Your task to perform on an android device: Search for 4k TVs on Best Buy. Image 0: 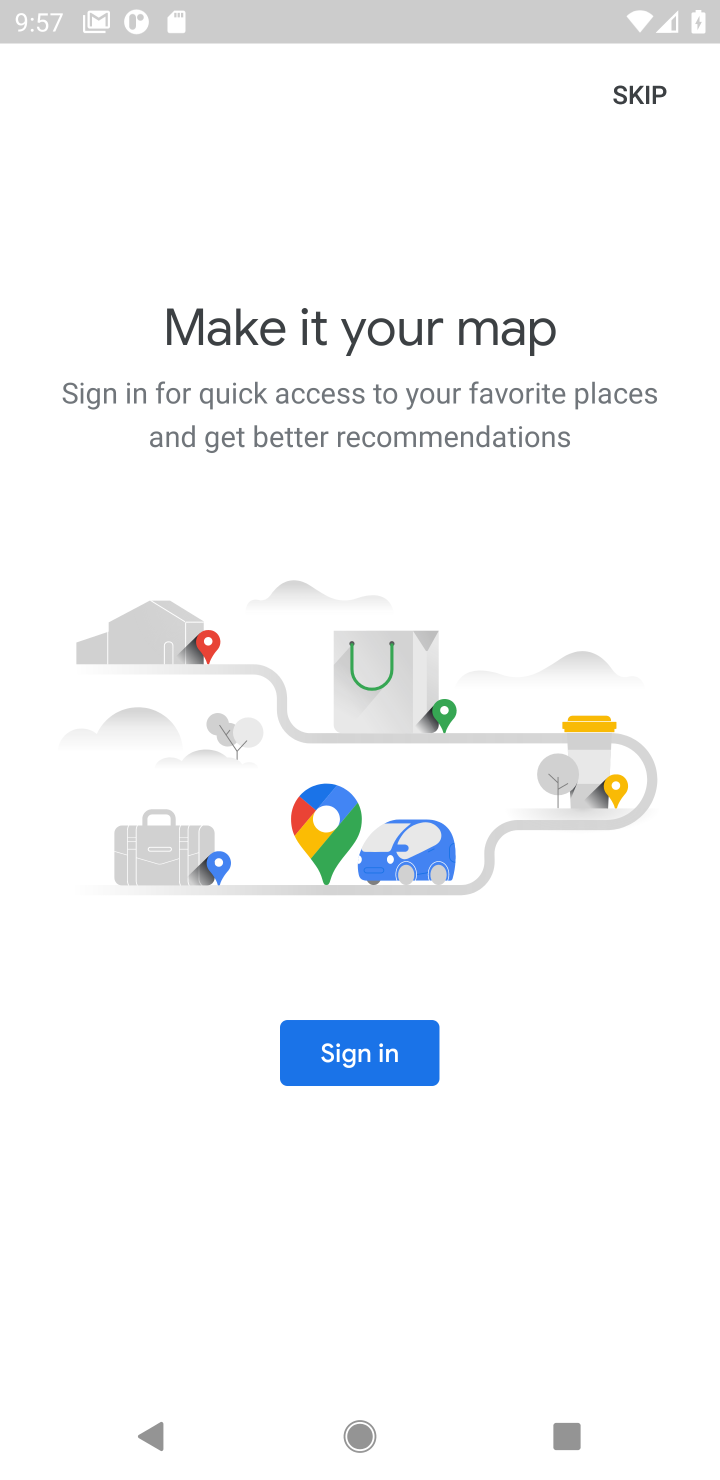
Step 0: press home button
Your task to perform on an android device: Search for 4k TVs on Best Buy. Image 1: 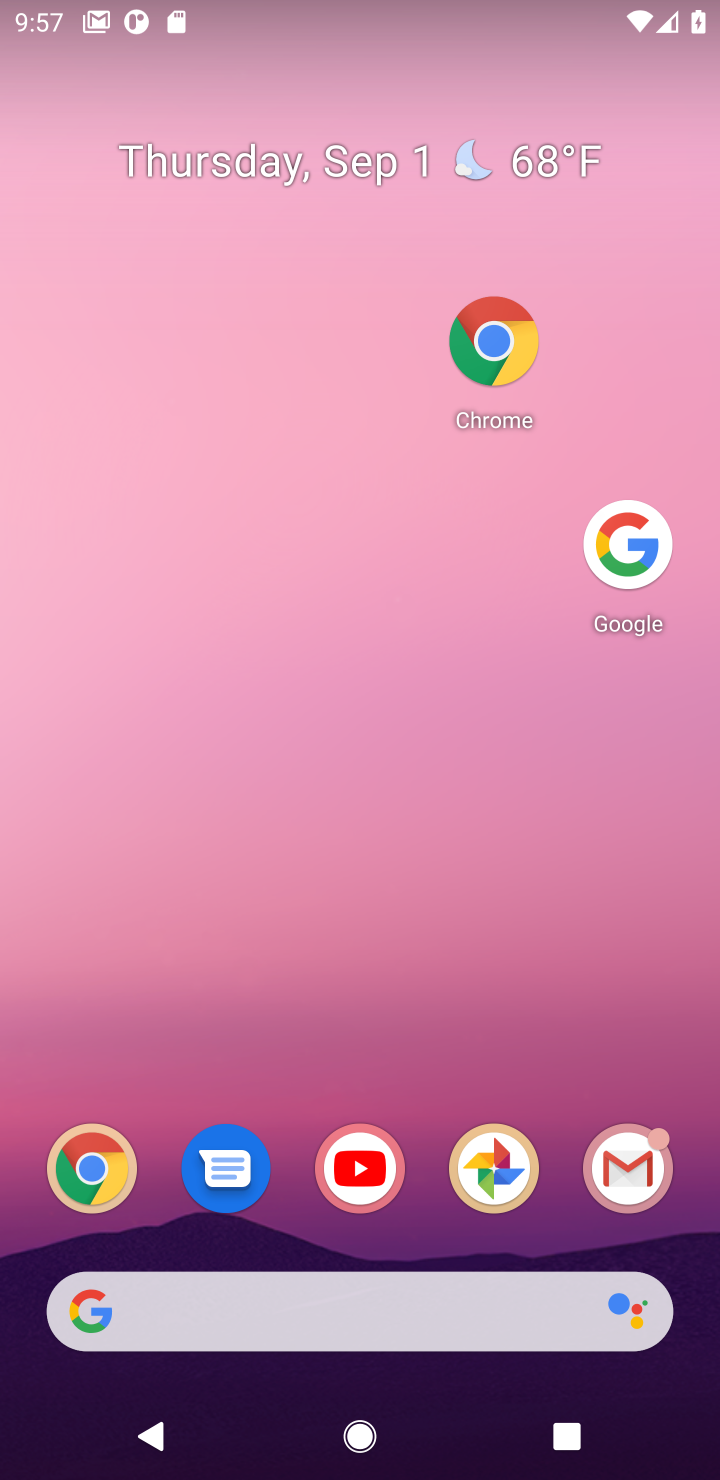
Step 1: drag from (346, 877) to (424, 439)
Your task to perform on an android device: Search for 4k TVs on Best Buy. Image 2: 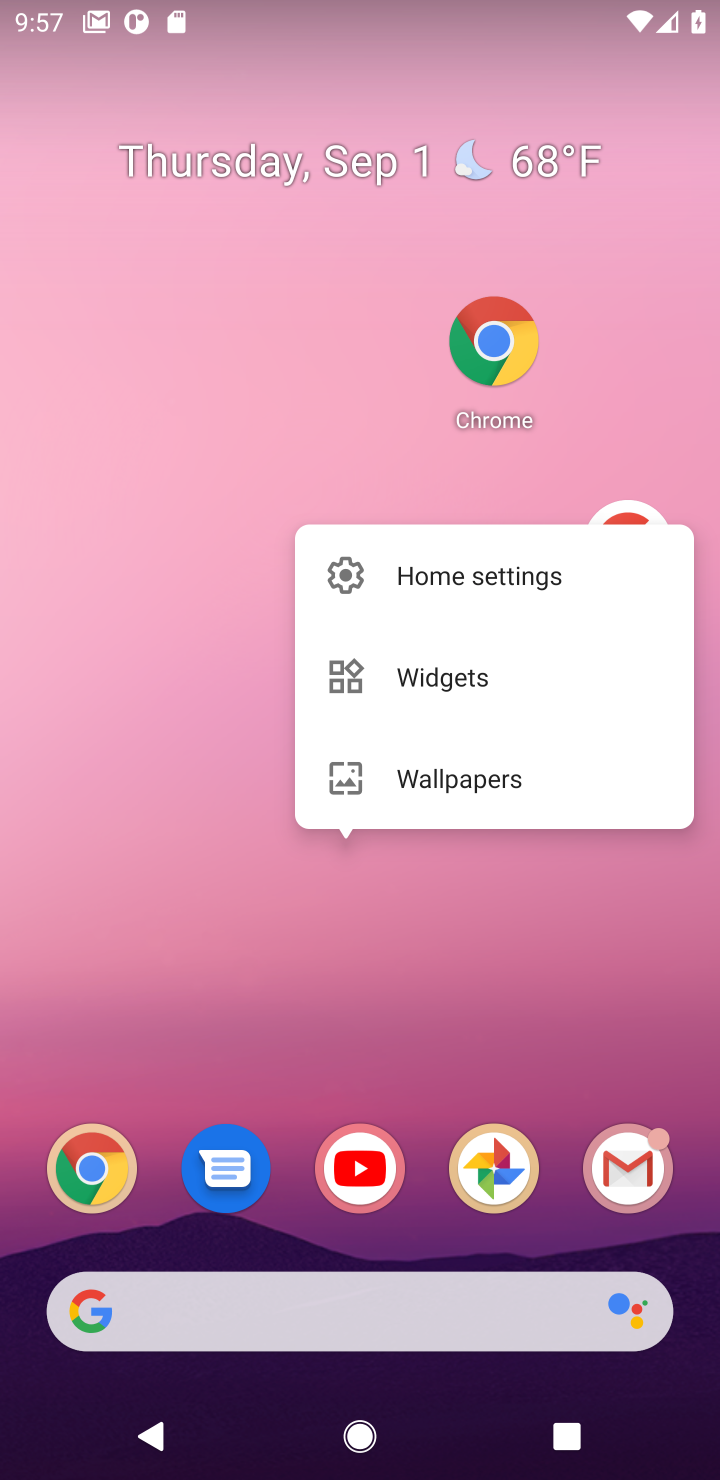
Step 2: click (349, 460)
Your task to perform on an android device: Search for 4k TVs on Best Buy. Image 3: 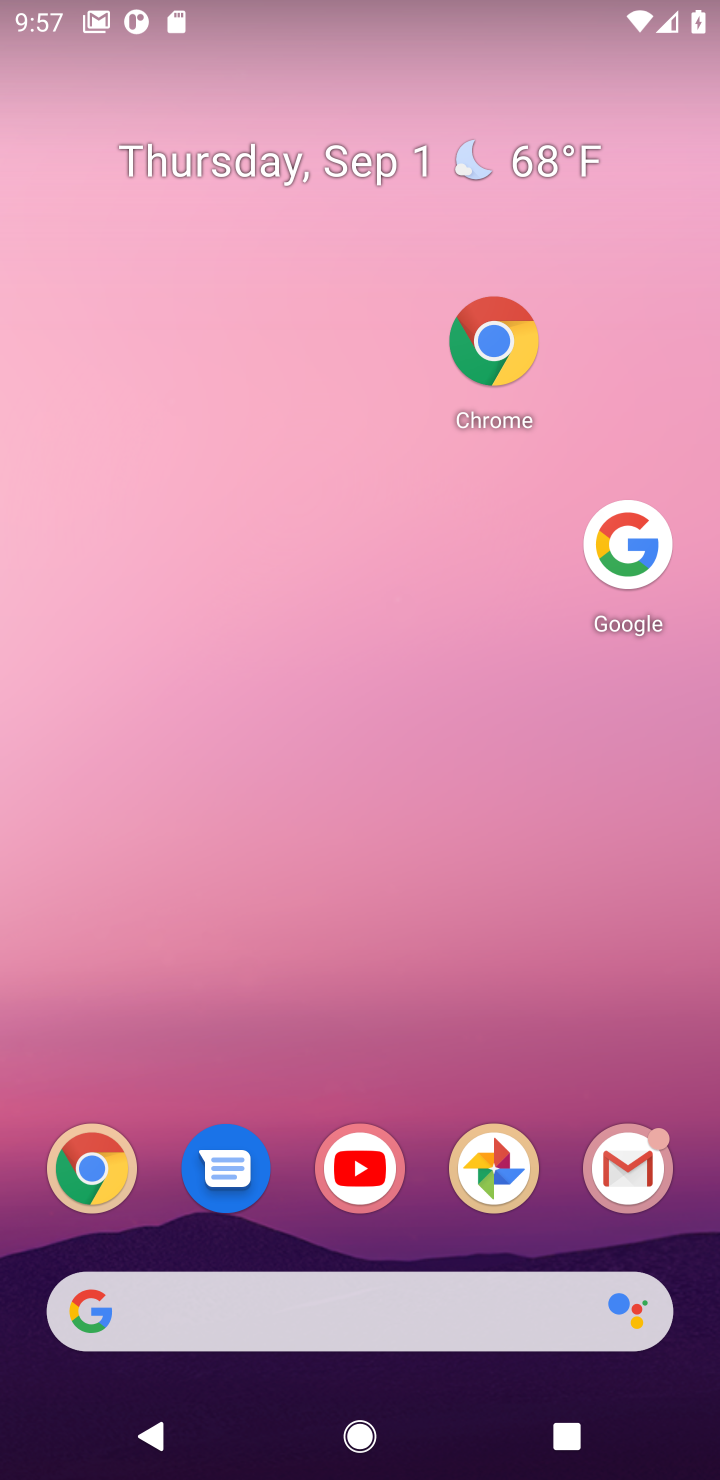
Step 3: click (633, 529)
Your task to perform on an android device: Search for 4k TVs on Best Buy. Image 4: 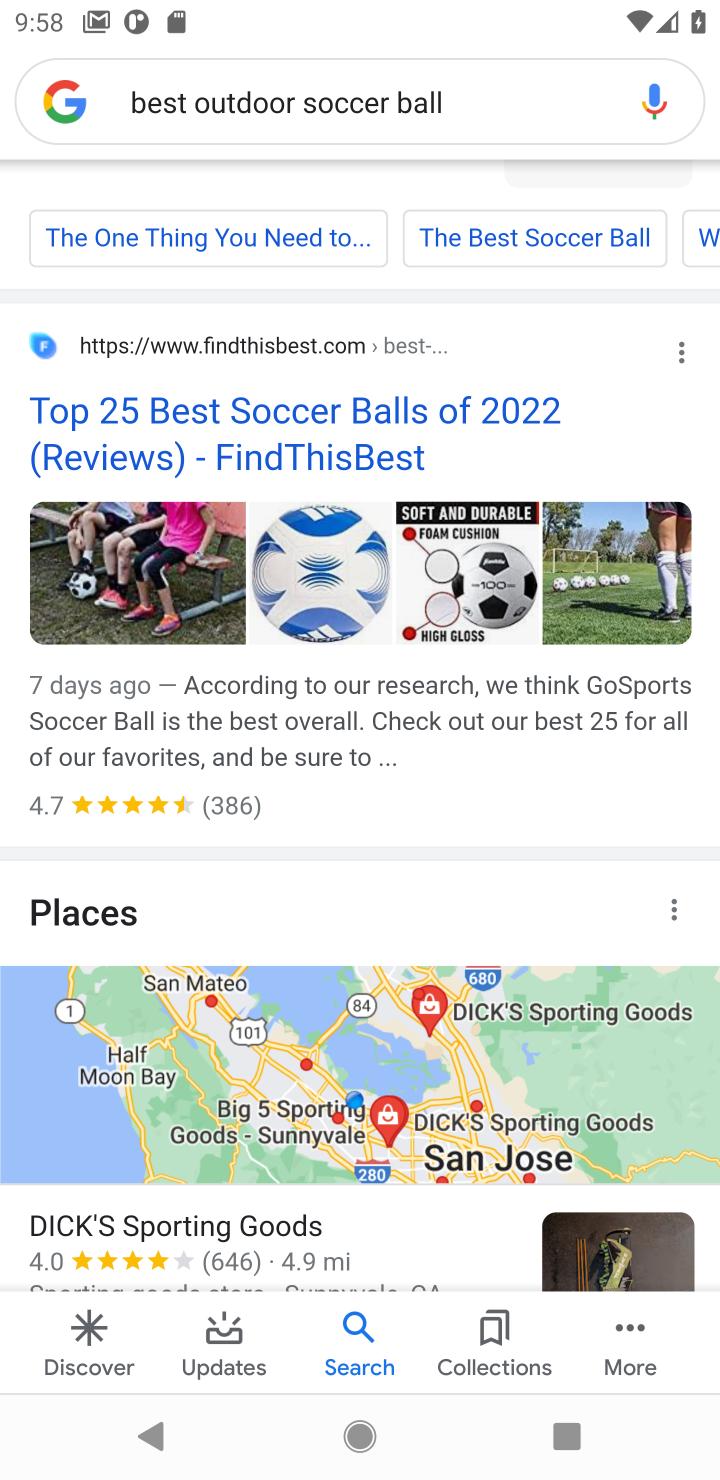
Step 4: click (521, 80)
Your task to perform on an android device: Search for 4k TVs on Best Buy. Image 5: 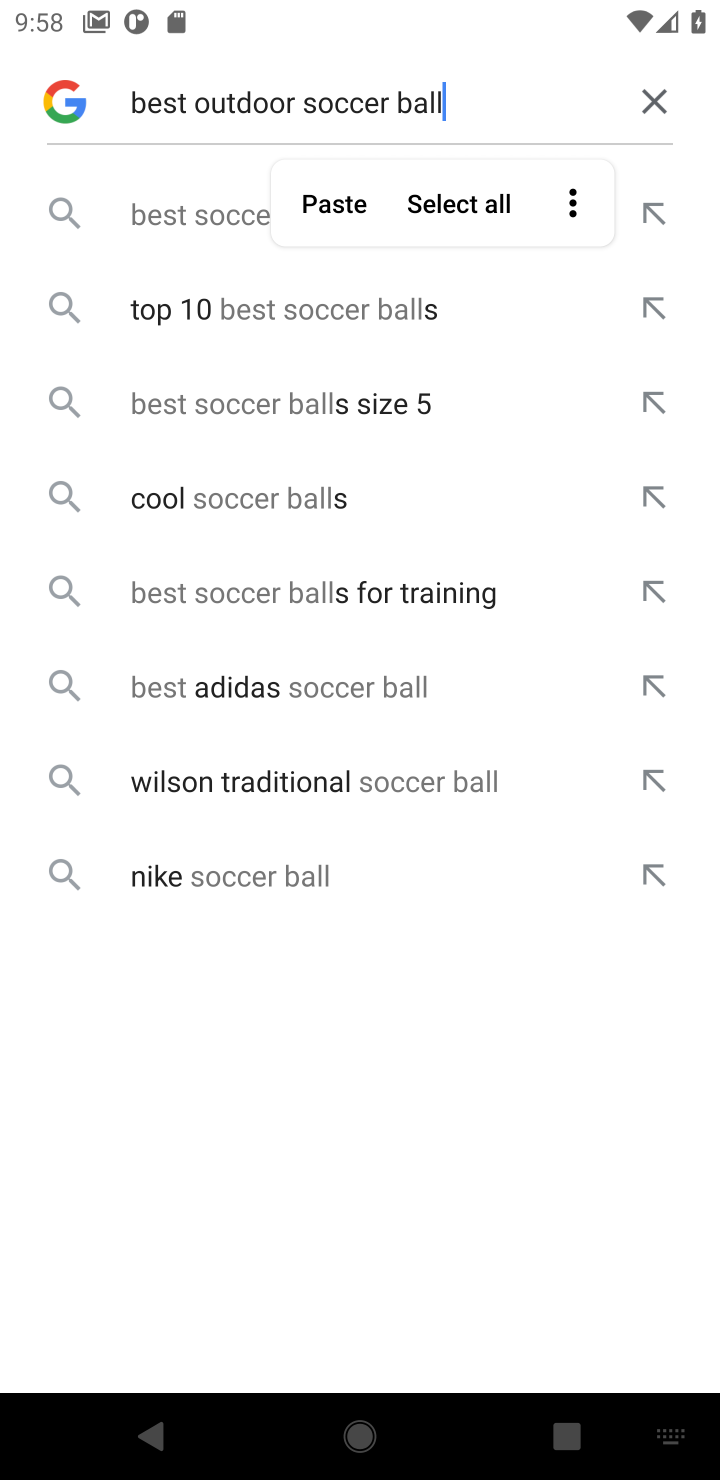
Step 5: click (634, 93)
Your task to perform on an android device: Search for 4k TVs on Best Buy. Image 6: 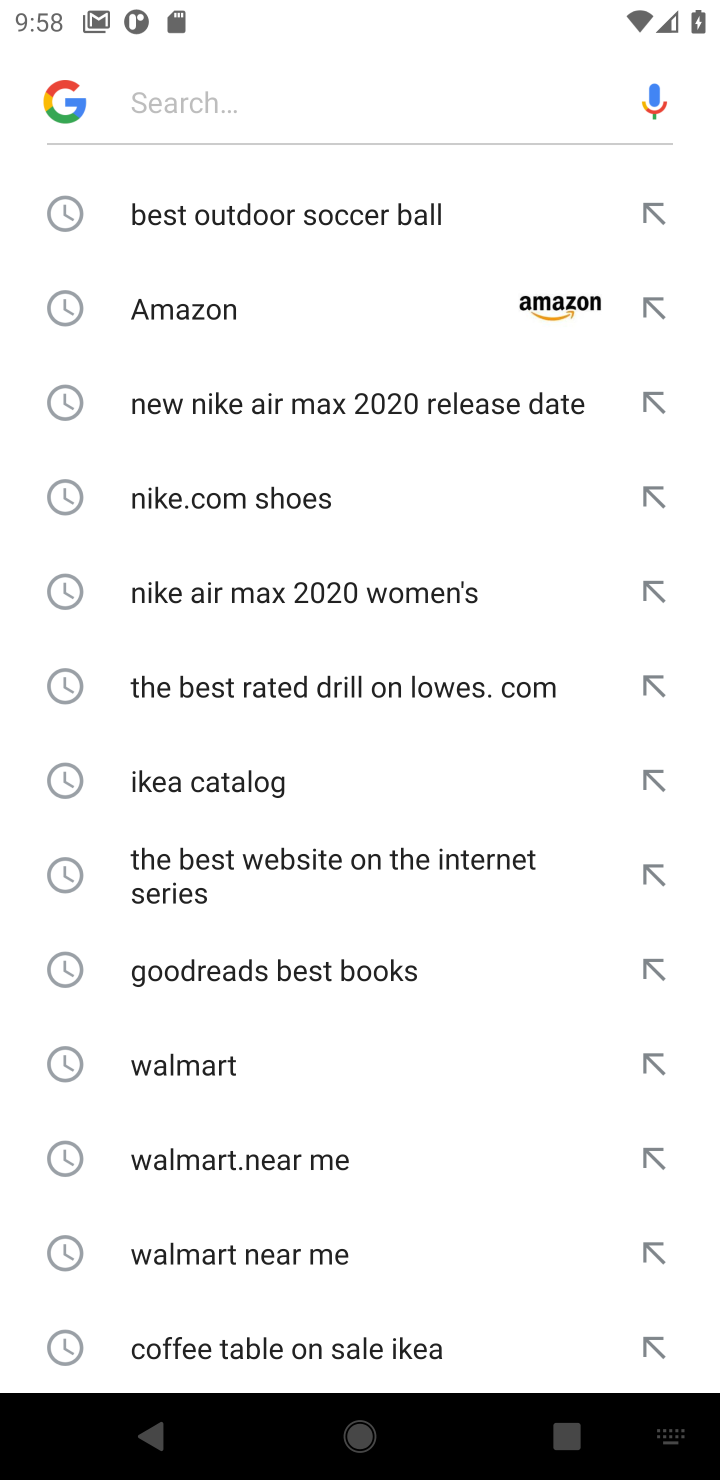
Step 6: click (300, 104)
Your task to perform on an android device: Search for 4k TVs on Best Buy. Image 7: 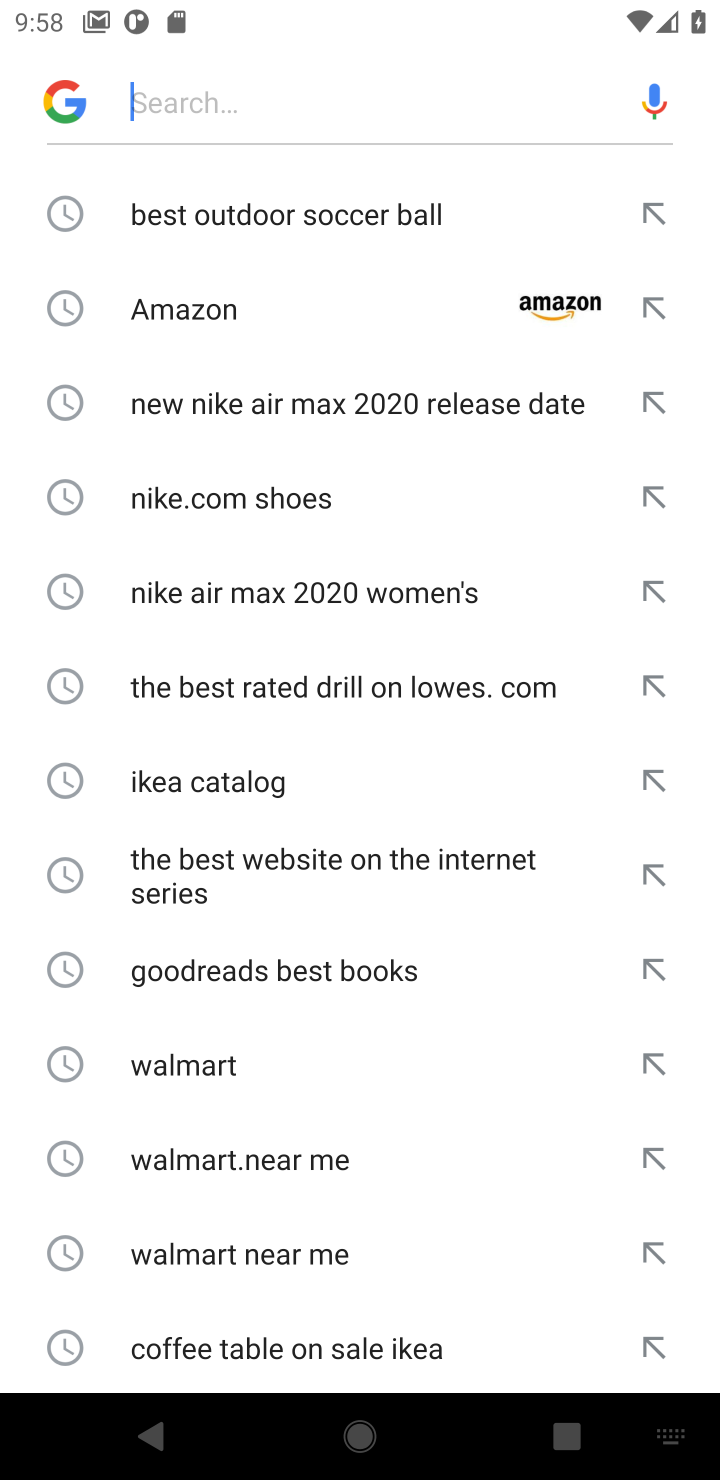
Step 7: type "Best Buy. "
Your task to perform on an android device: Search for 4k TVs on Best Buy. Image 8: 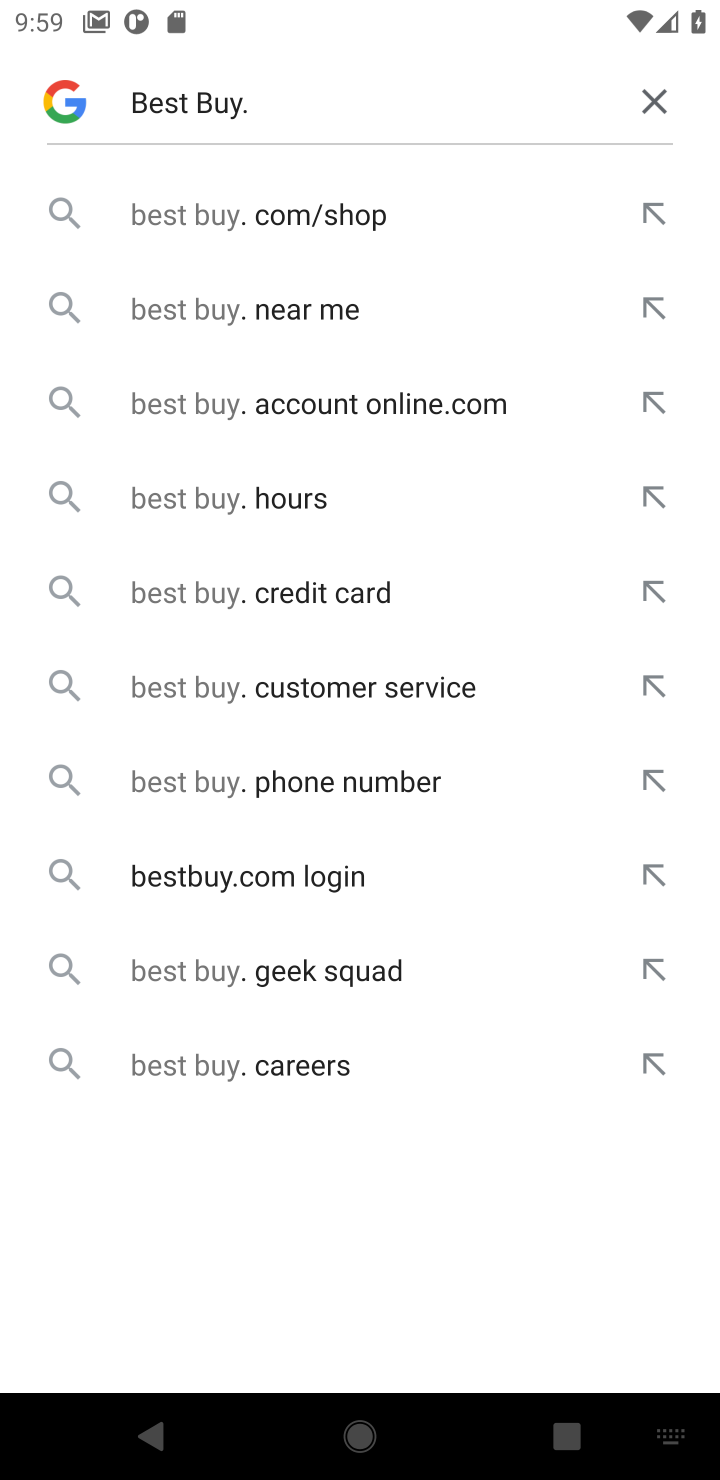
Step 8: click (253, 233)
Your task to perform on an android device: Search for 4k TVs on Best Buy. Image 9: 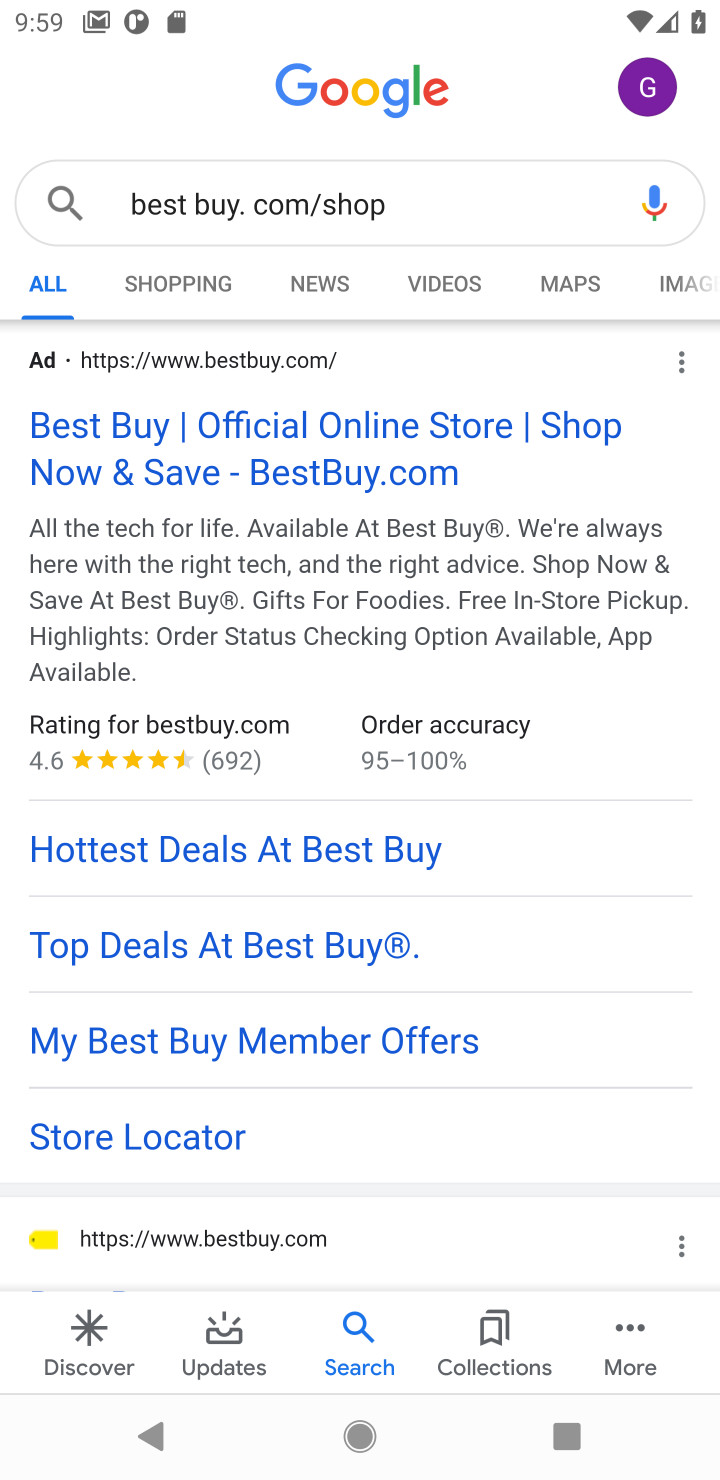
Step 9: click (211, 430)
Your task to perform on an android device: Search for 4k TVs on Best Buy. Image 10: 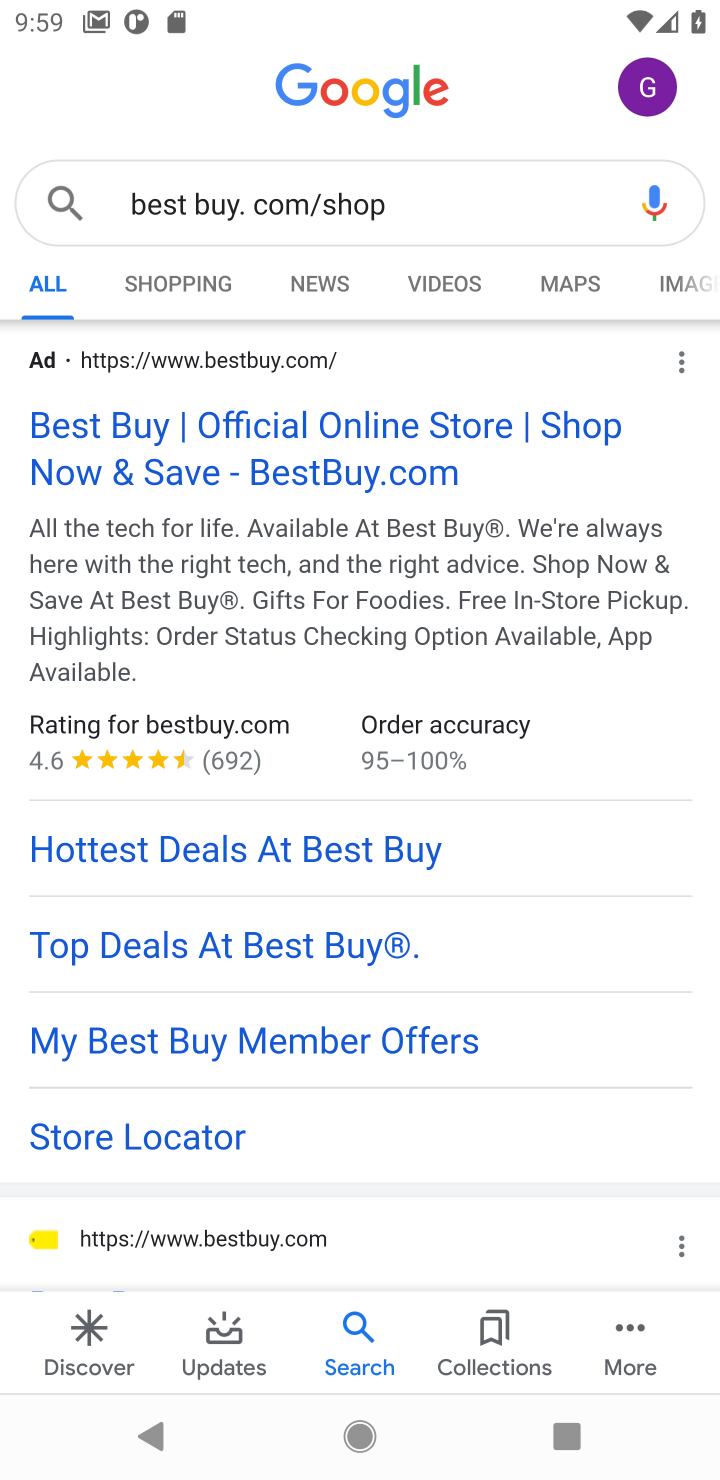
Step 10: click (261, 396)
Your task to perform on an android device: Search for 4k TVs on Best Buy. Image 11: 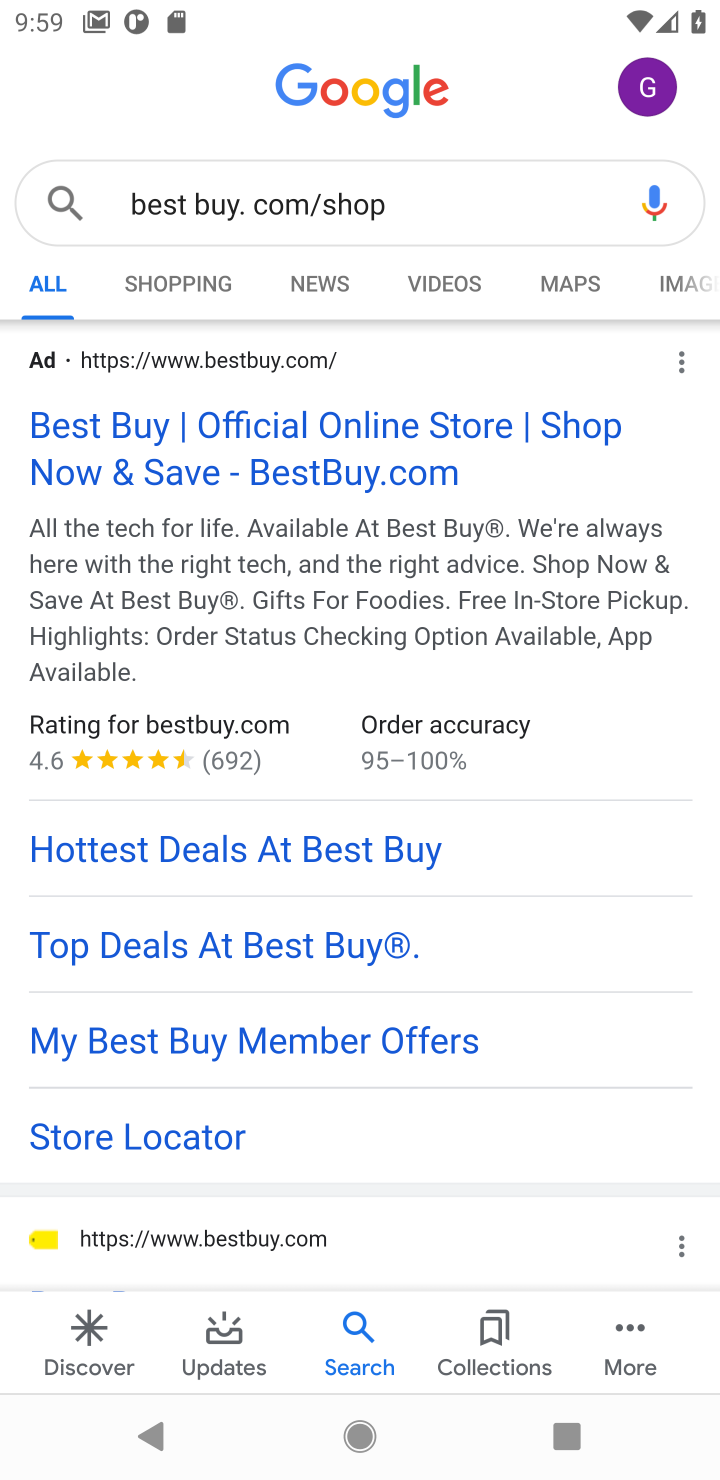
Step 11: click (268, 422)
Your task to perform on an android device: Search for 4k TVs on Best Buy. Image 12: 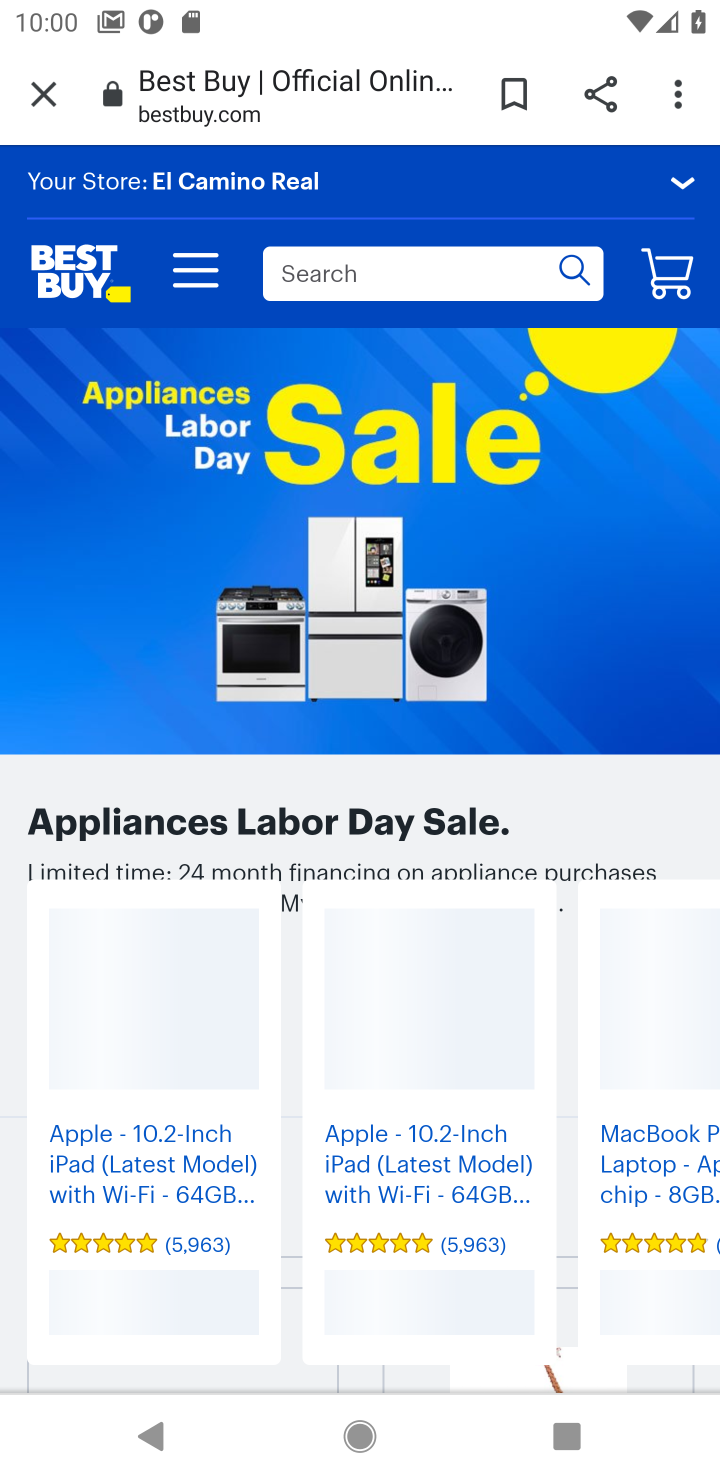
Step 12: click (352, 275)
Your task to perform on an android device: Search for 4k TVs on Best Buy. Image 13: 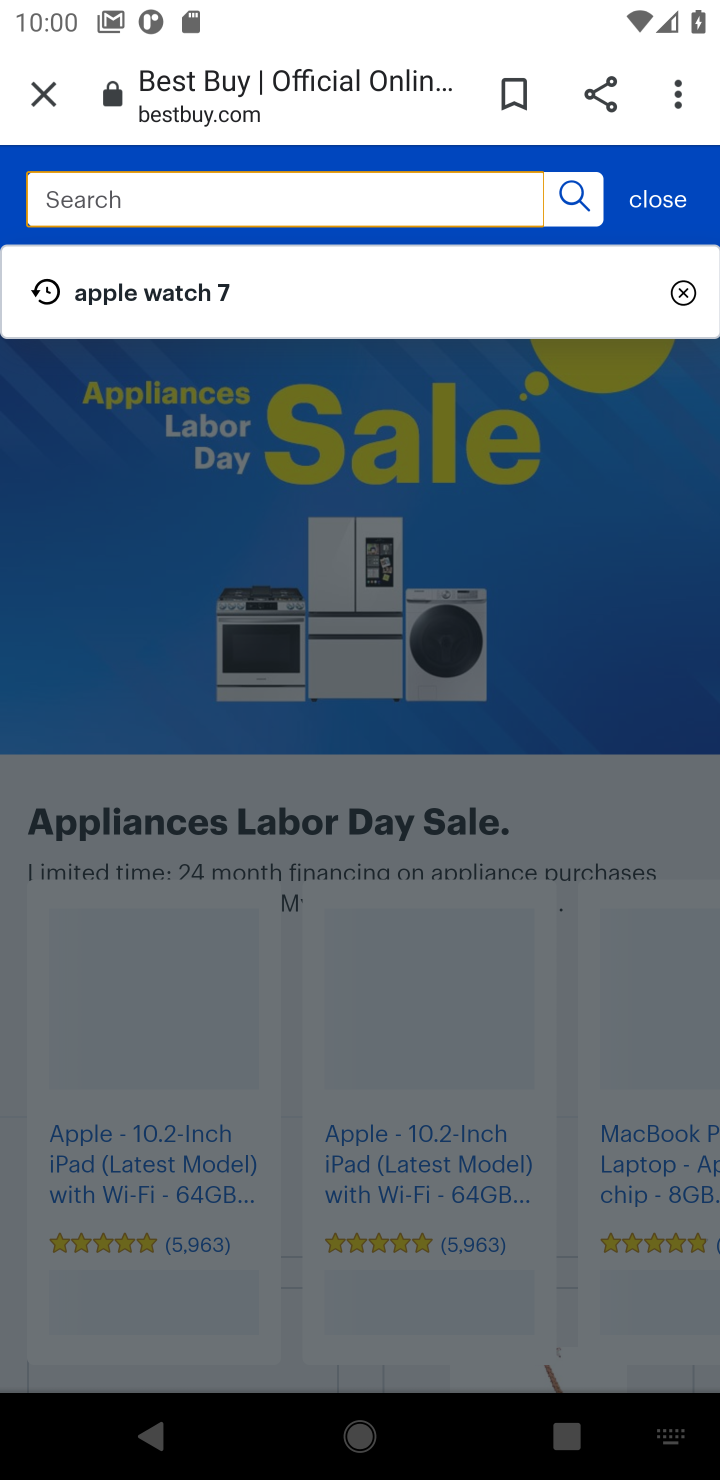
Step 13: type "4k TVs "
Your task to perform on an android device: Search for 4k TVs on Best Buy. Image 14: 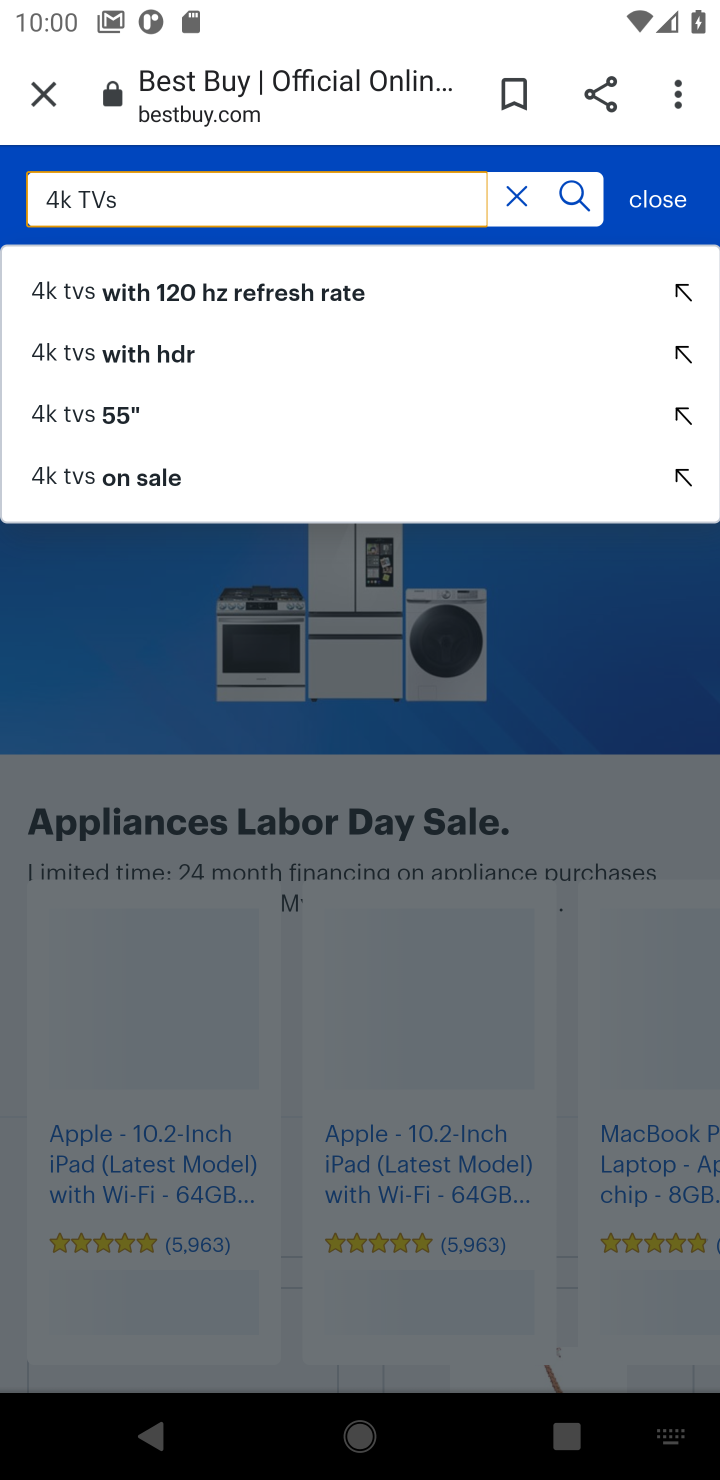
Step 14: click (234, 302)
Your task to perform on an android device: Search for 4k TVs on Best Buy. Image 15: 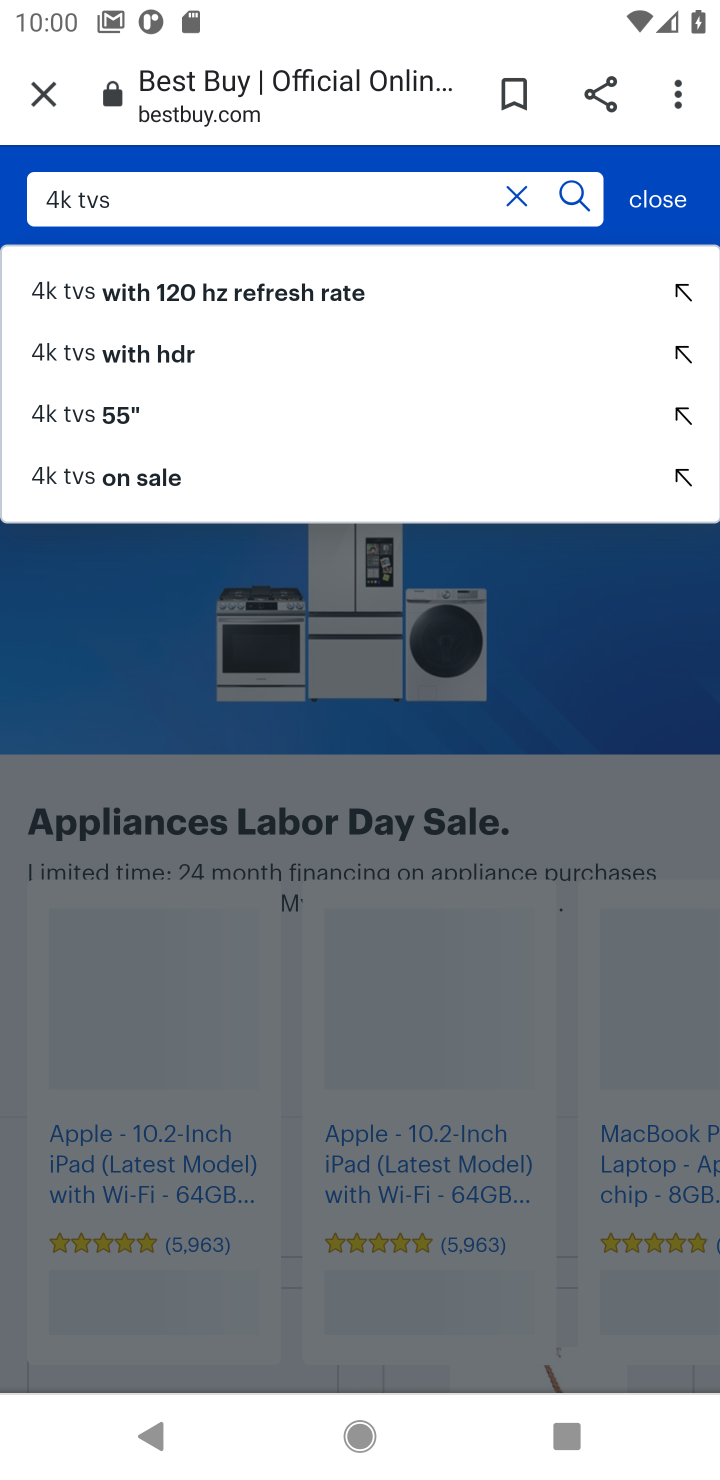
Step 15: click (195, 291)
Your task to perform on an android device: Search for 4k TVs on Best Buy. Image 16: 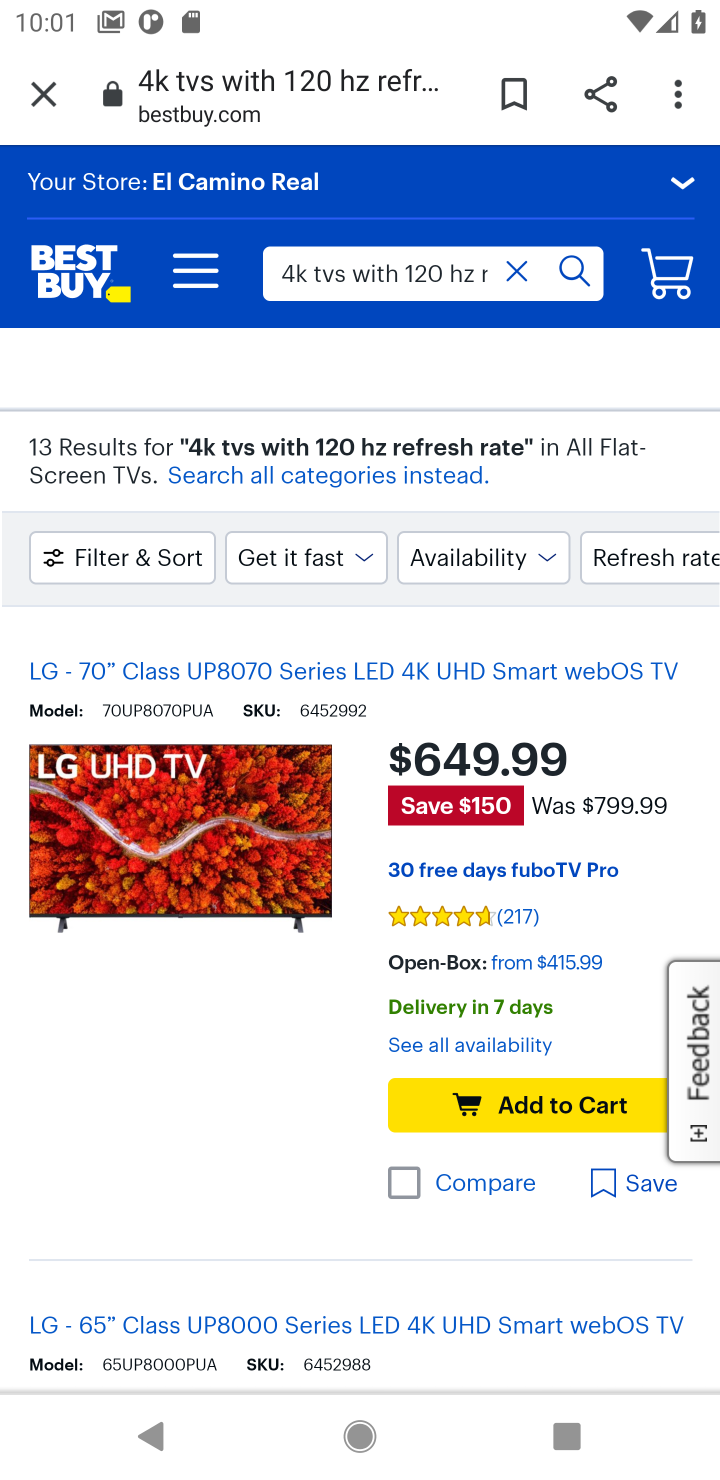
Step 16: drag from (272, 1069) to (284, 587)
Your task to perform on an android device: Search for 4k TVs on Best Buy. Image 17: 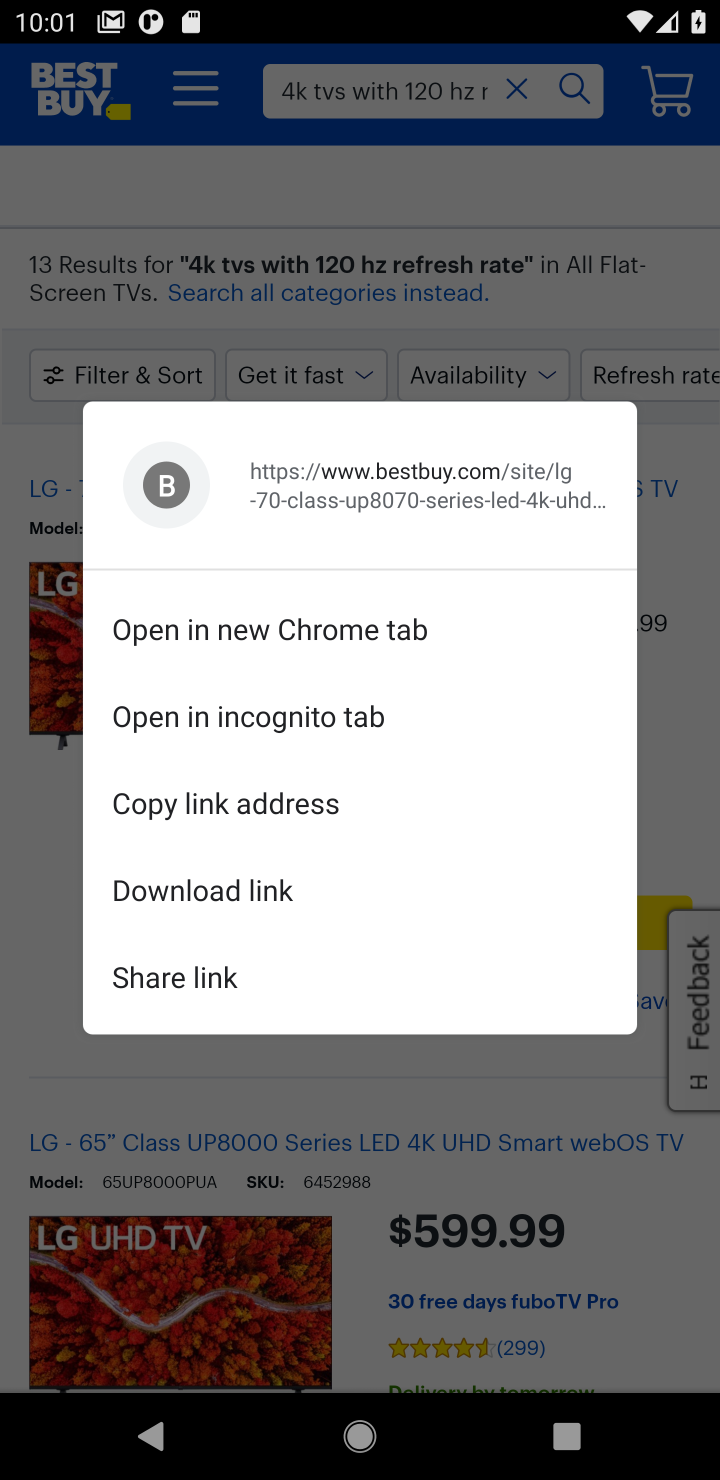
Step 17: click (645, 290)
Your task to perform on an android device: Search for 4k TVs on Best Buy. Image 18: 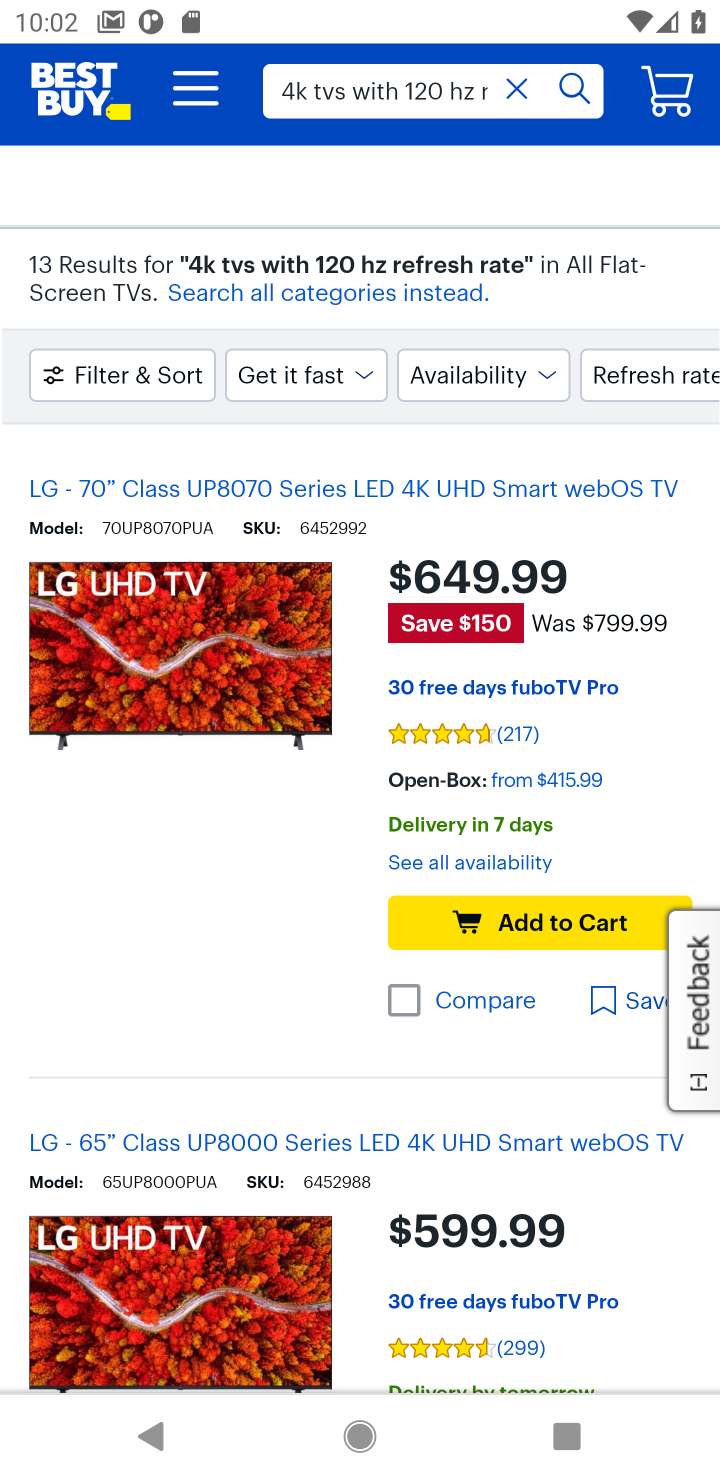
Step 18: task complete